Your task to perform on an android device: Open the stopwatch Image 0: 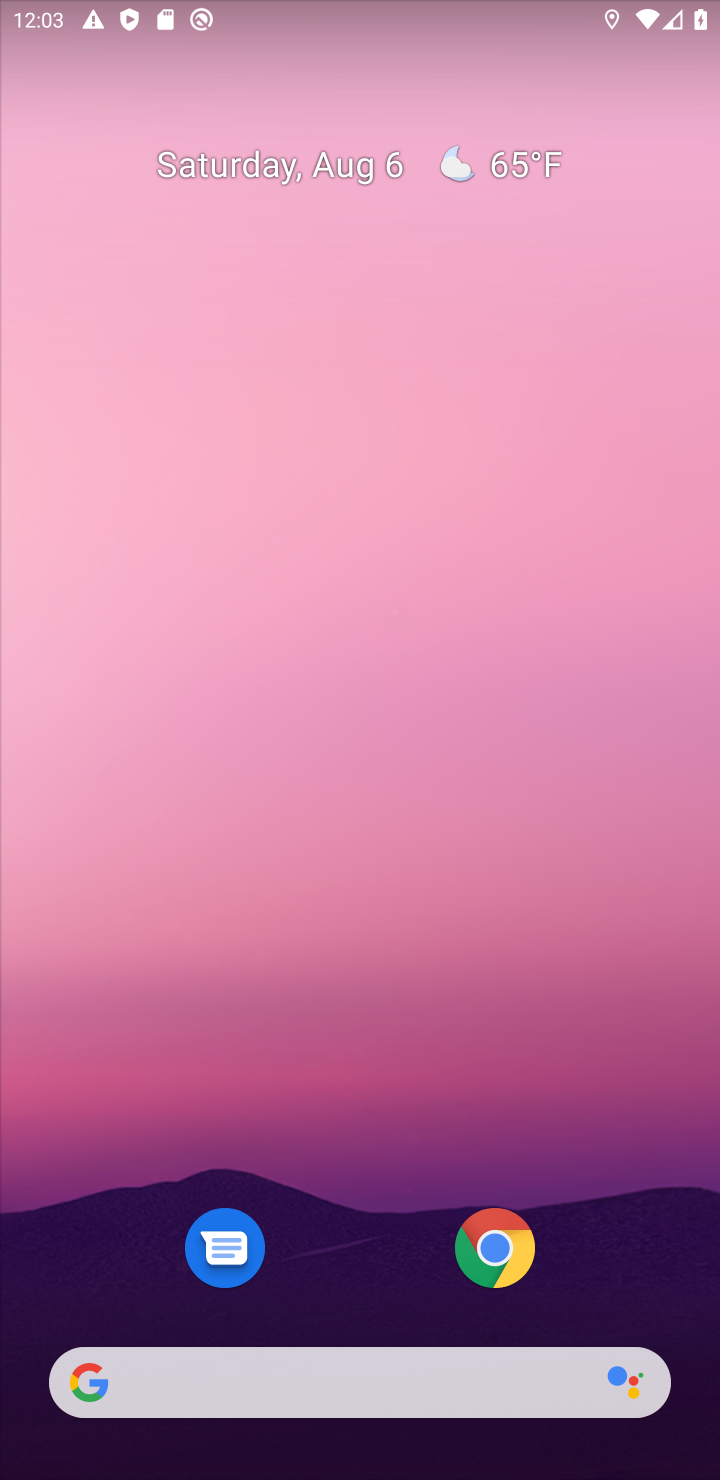
Step 0: press home button
Your task to perform on an android device: Open the stopwatch Image 1: 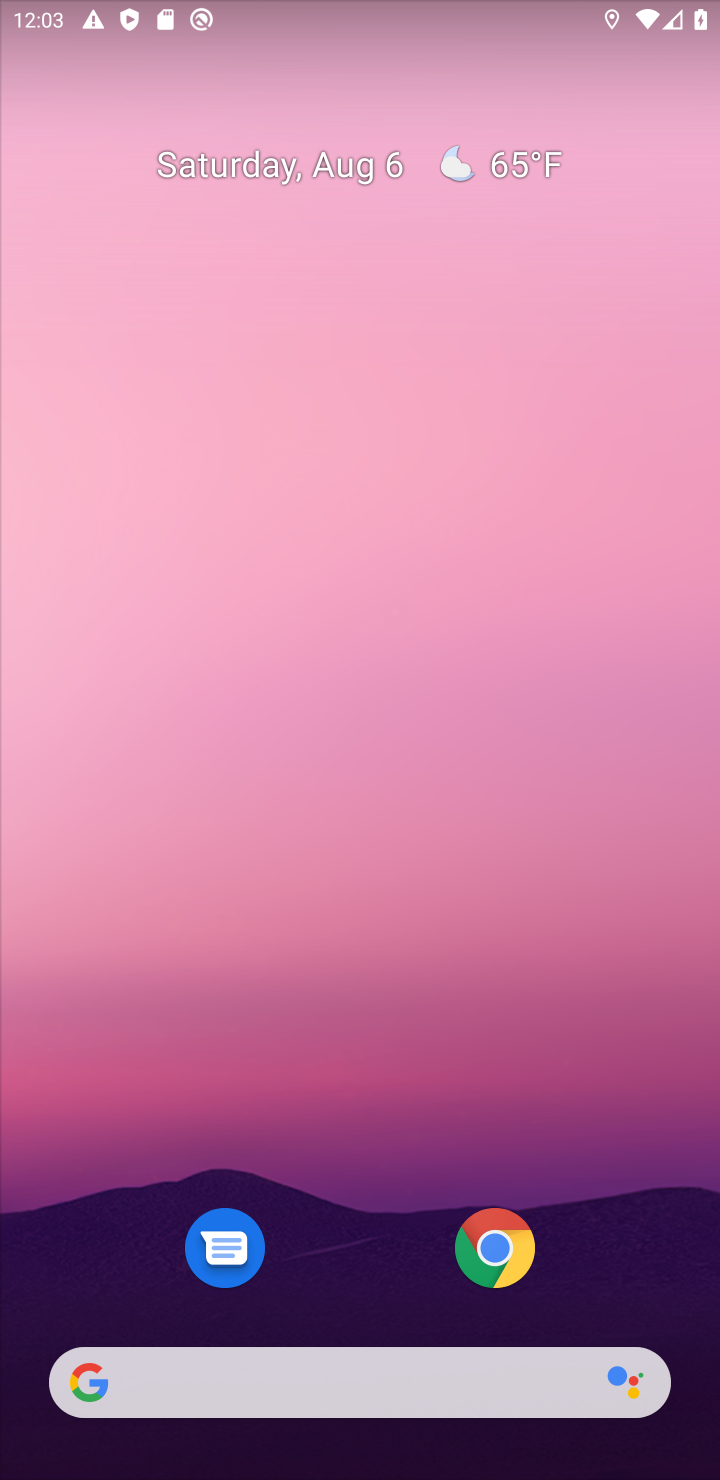
Step 1: drag from (375, 1278) to (387, 140)
Your task to perform on an android device: Open the stopwatch Image 2: 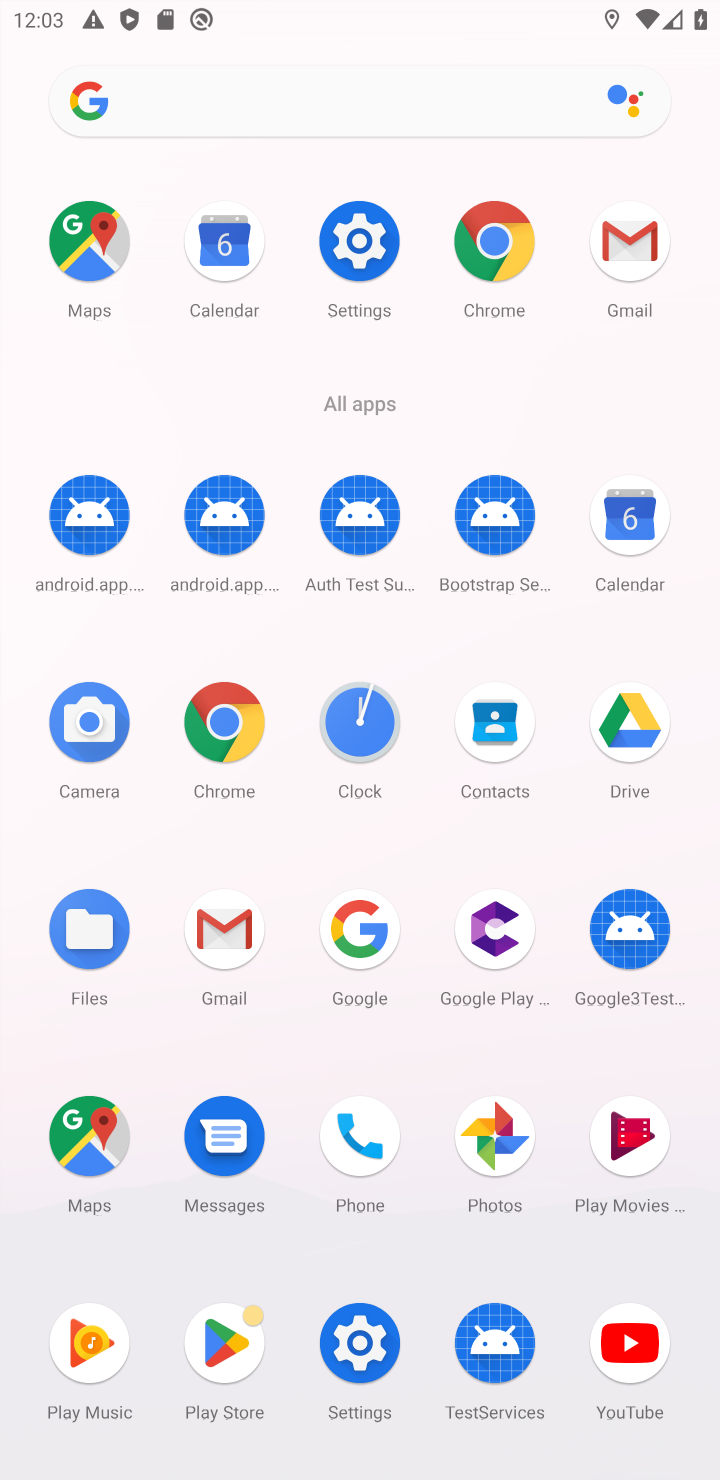
Step 2: click (348, 705)
Your task to perform on an android device: Open the stopwatch Image 3: 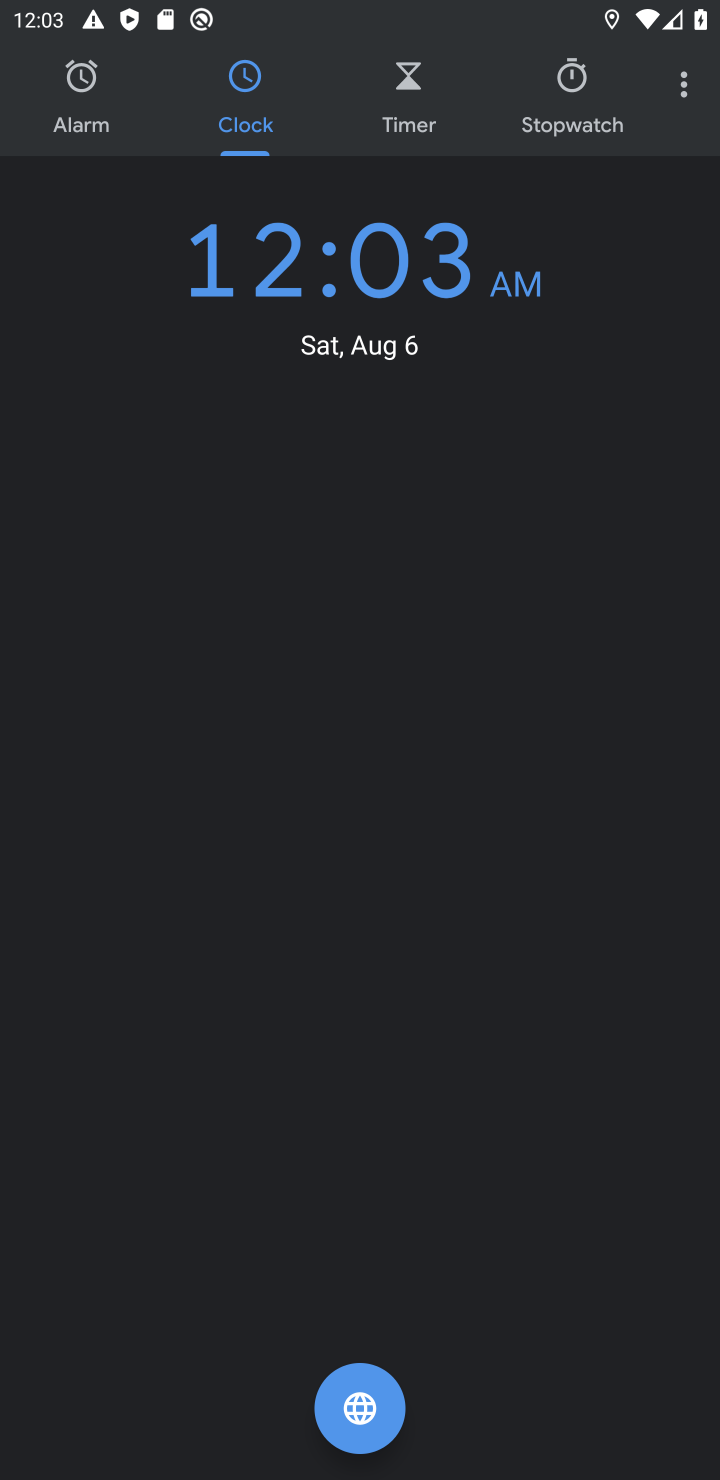
Step 3: click (571, 77)
Your task to perform on an android device: Open the stopwatch Image 4: 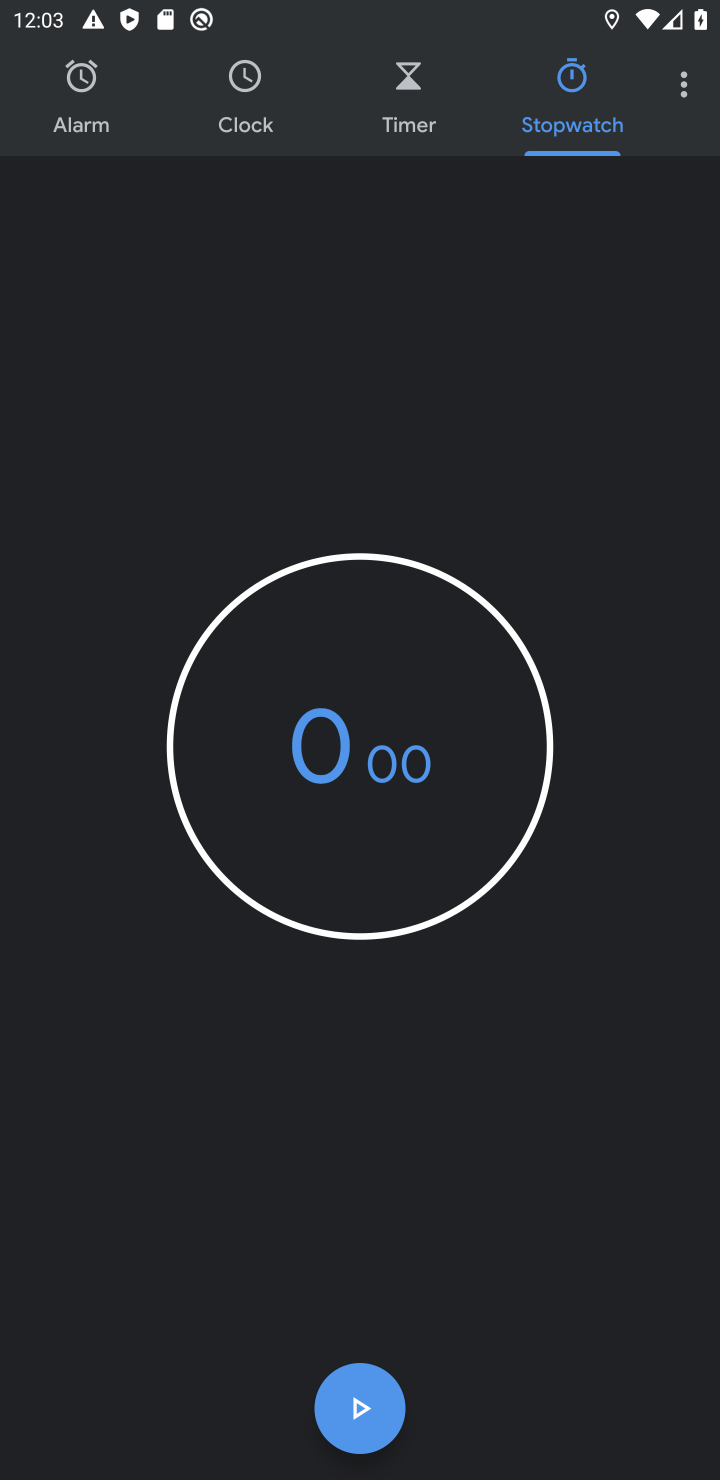
Step 4: click (353, 1405)
Your task to perform on an android device: Open the stopwatch Image 5: 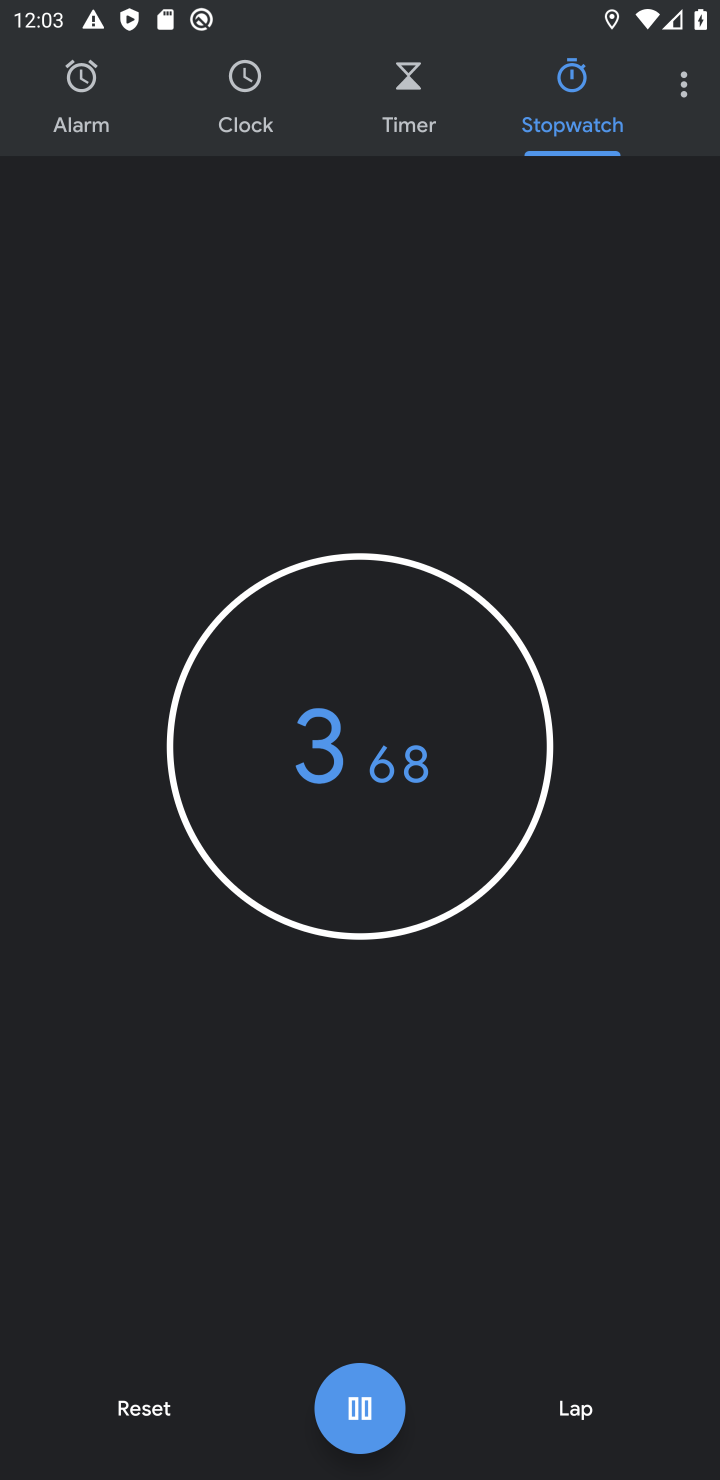
Step 5: task complete